Your task to perform on an android device: clear history in the chrome app Image 0: 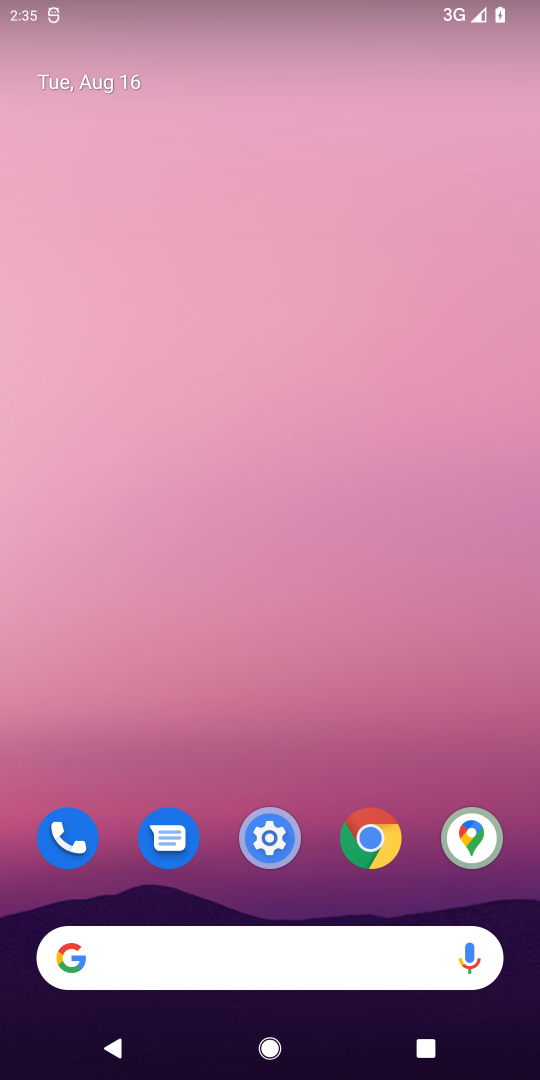
Step 0: press home button
Your task to perform on an android device: clear history in the chrome app Image 1: 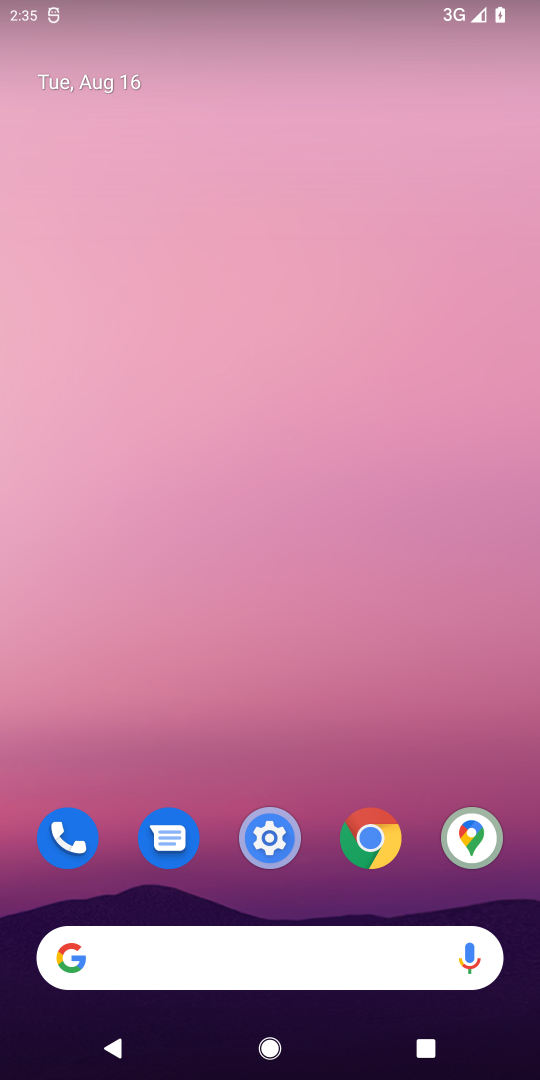
Step 1: click (379, 833)
Your task to perform on an android device: clear history in the chrome app Image 2: 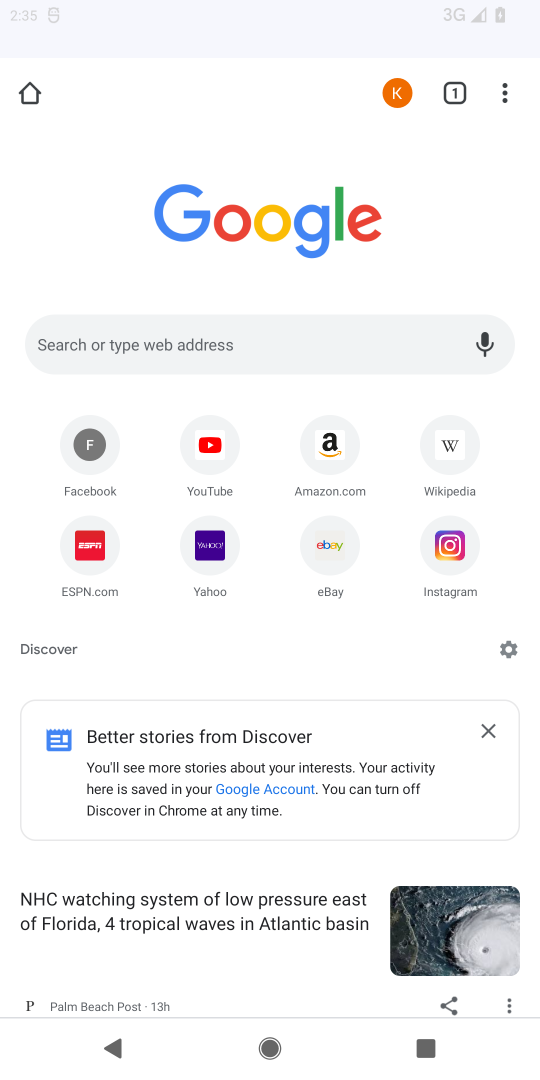
Step 2: click (509, 88)
Your task to perform on an android device: clear history in the chrome app Image 3: 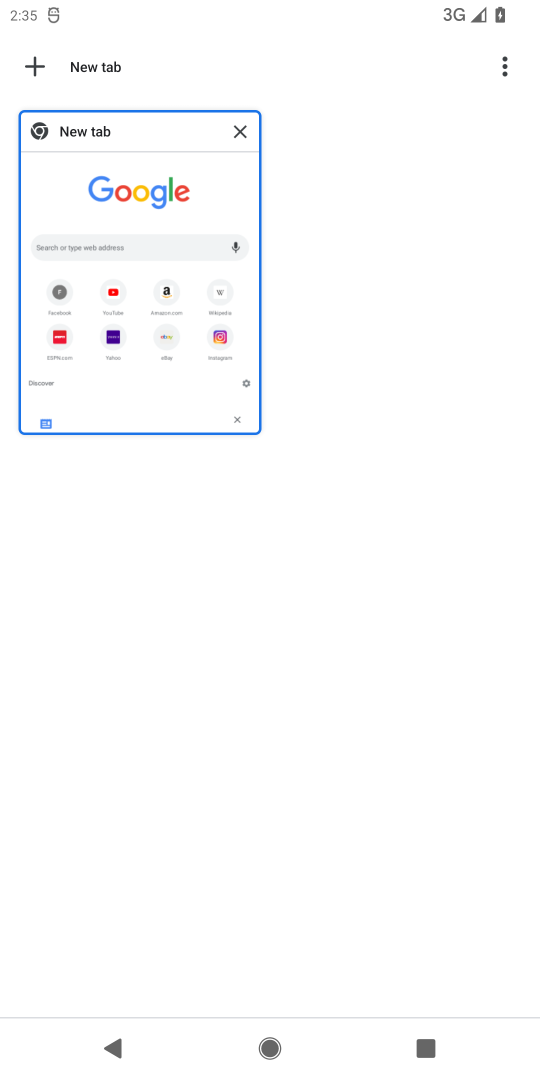
Step 3: drag from (506, 64) to (312, 289)
Your task to perform on an android device: clear history in the chrome app Image 4: 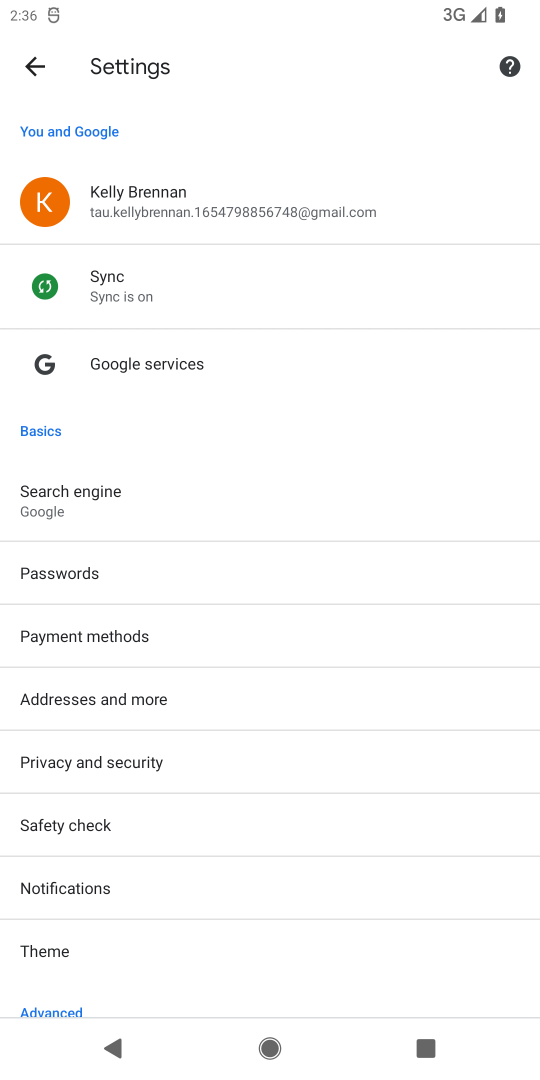
Step 4: drag from (234, 937) to (215, 679)
Your task to perform on an android device: clear history in the chrome app Image 5: 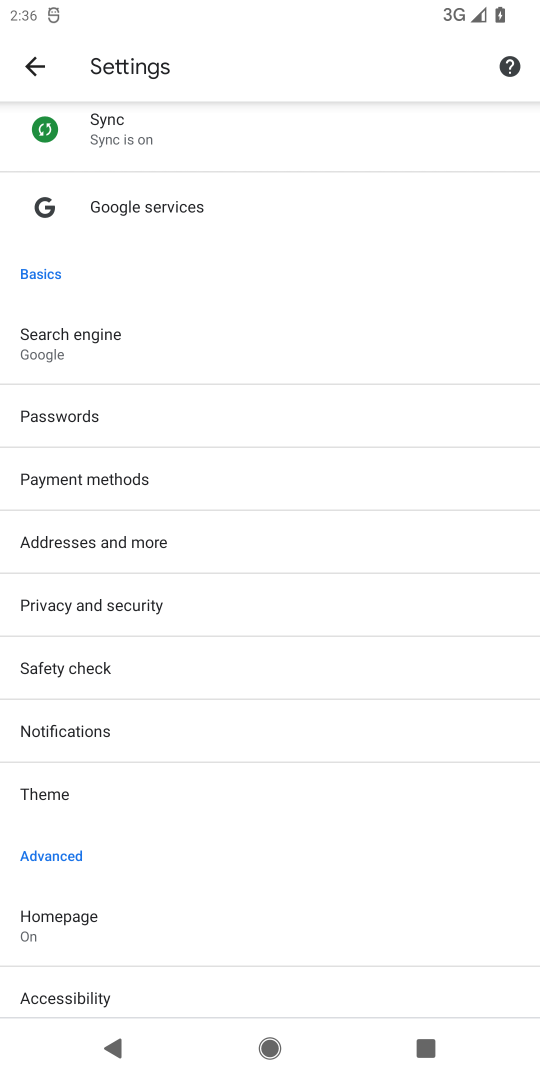
Step 5: click (109, 595)
Your task to perform on an android device: clear history in the chrome app Image 6: 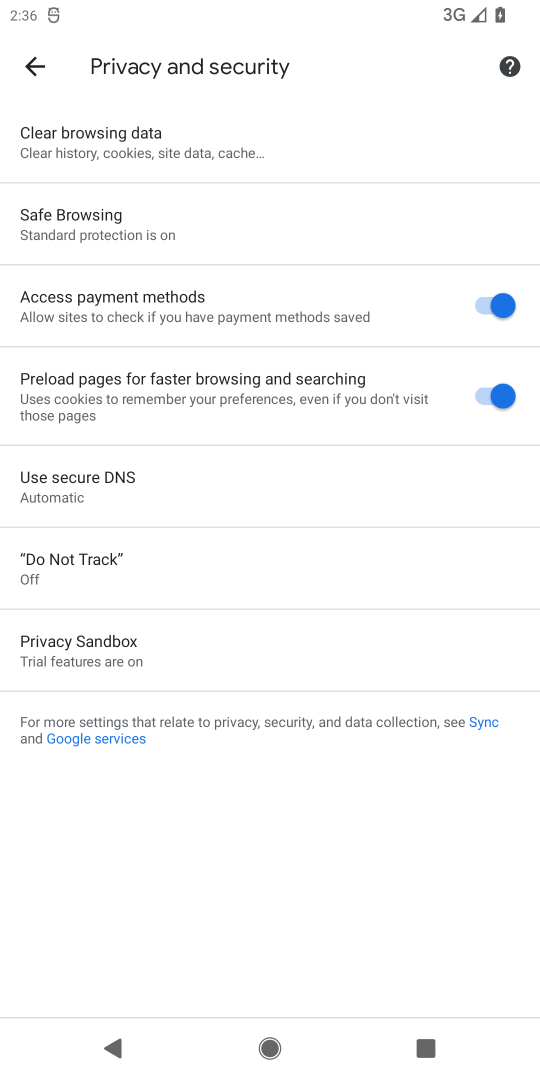
Step 6: click (59, 136)
Your task to perform on an android device: clear history in the chrome app Image 7: 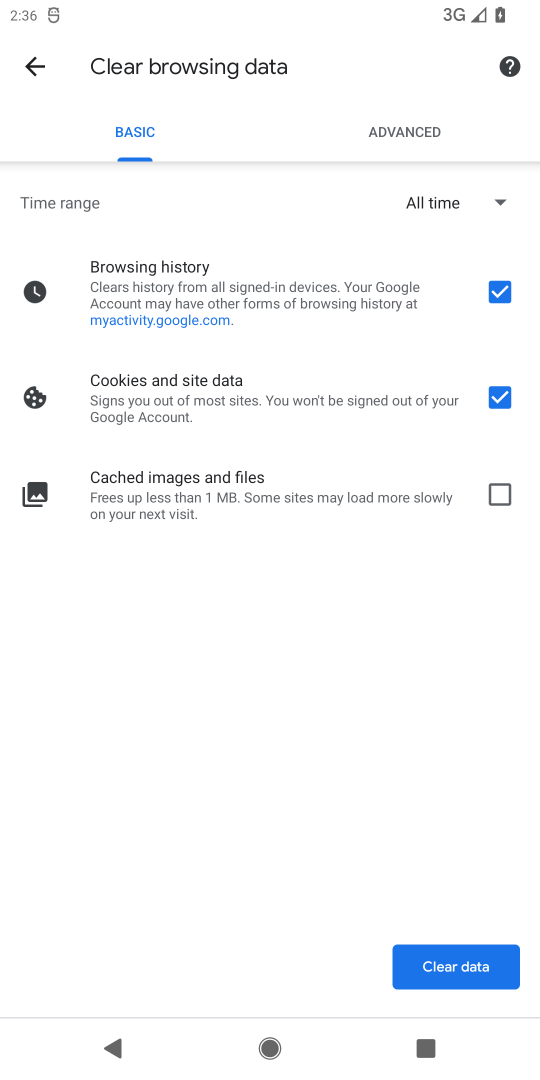
Step 7: click (506, 395)
Your task to perform on an android device: clear history in the chrome app Image 8: 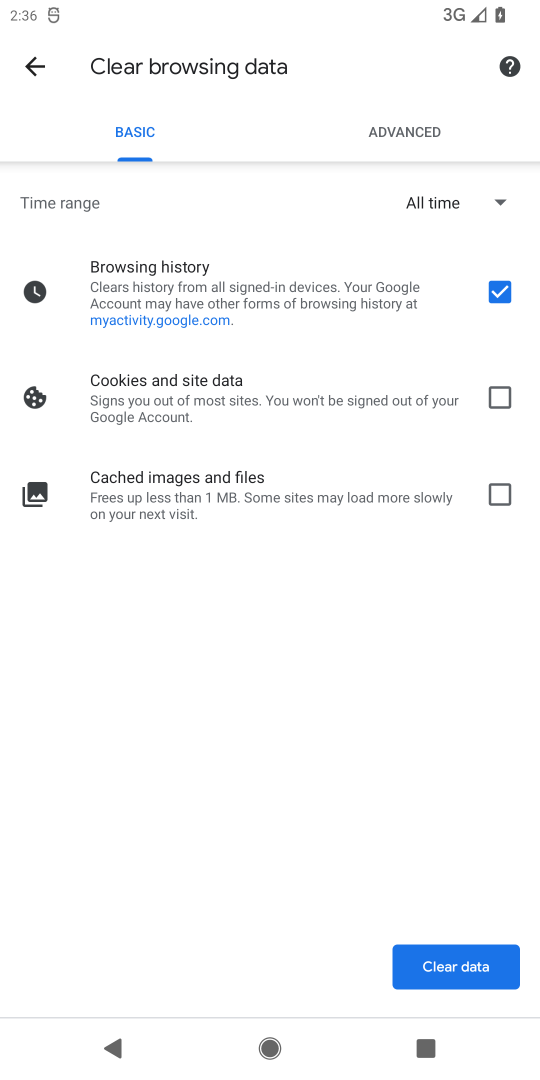
Step 8: click (452, 978)
Your task to perform on an android device: clear history in the chrome app Image 9: 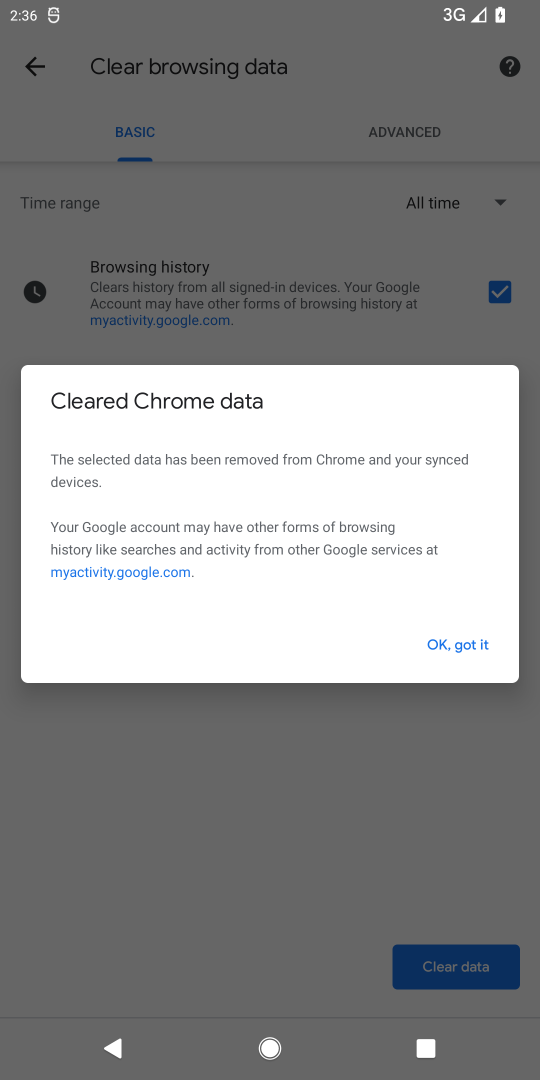
Step 9: click (448, 639)
Your task to perform on an android device: clear history in the chrome app Image 10: 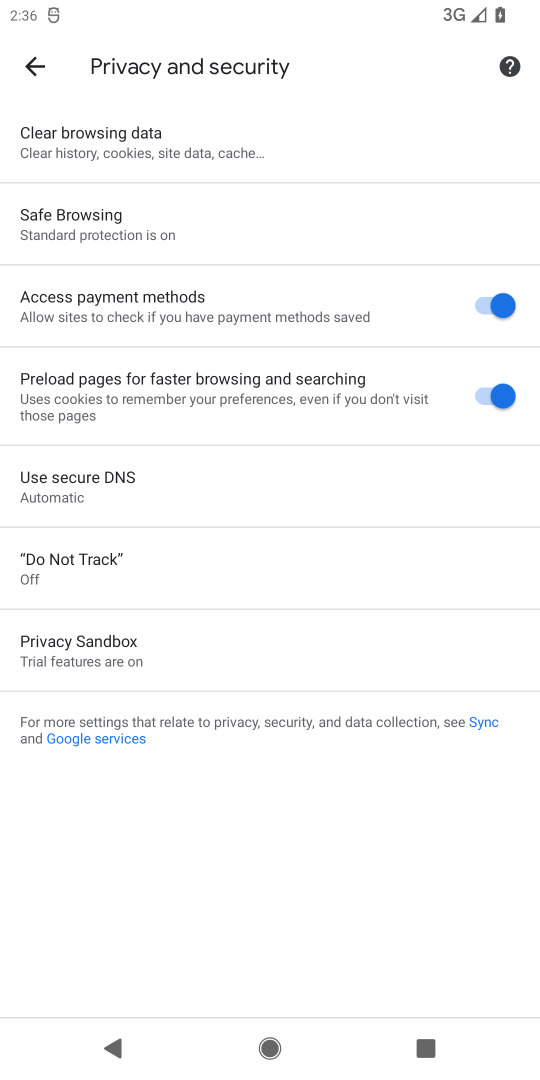
Step 10: task complete